Your task to perform on an android device: What's the weather? Image 0: 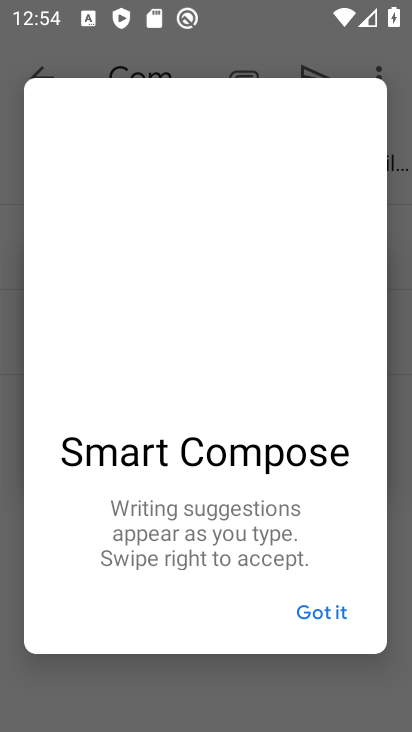
Step 0: press home button
Your task to perform on an android device: What's the weather? Image 1: 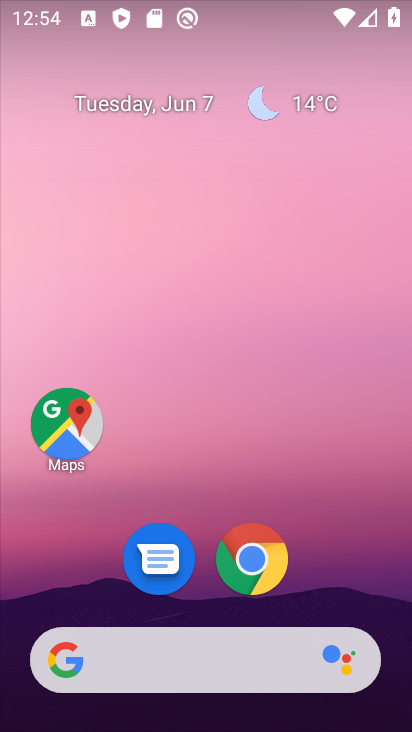
Step 1: click (301, 100)
Your task to perform on an android device: What's the weather? Image 2: 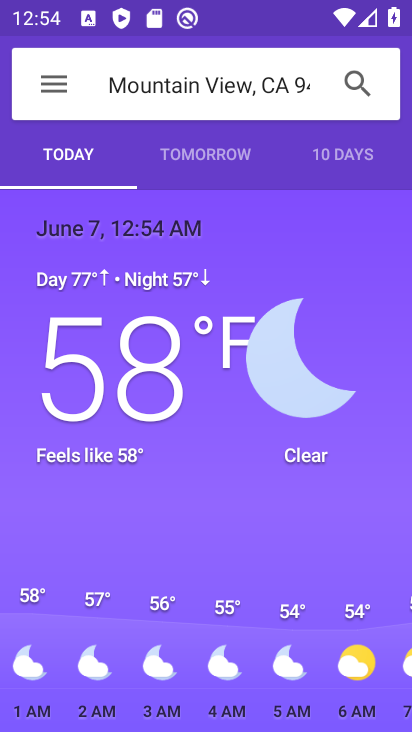
Step 2: task complete